Your task to perform on an android device: Open Yahoo.com Image 0: 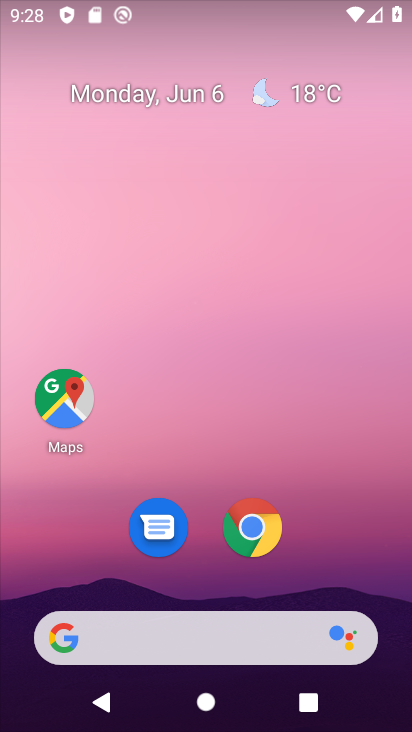
Step 0: click (275, 546)
Your task to perform on an android device: Open Yahoo.com Image 1: 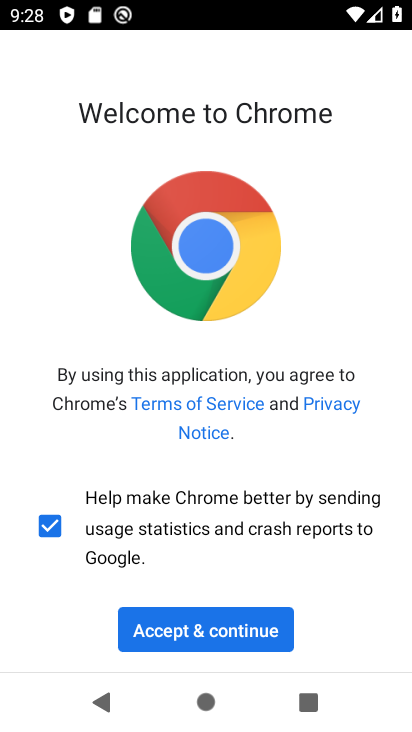
Step 1: click (183, 616)
Your task to perform on an android device: Open Yahoo.com Image 2: 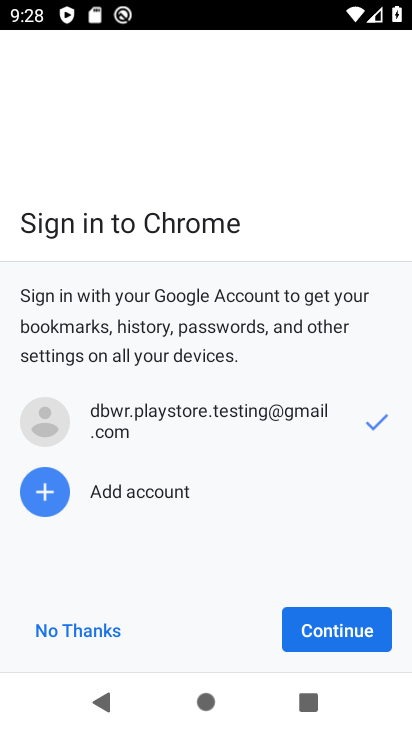
Step 2: click (334, 638)
Your task to perform on an android device: Open Yahoo.com Image 3: 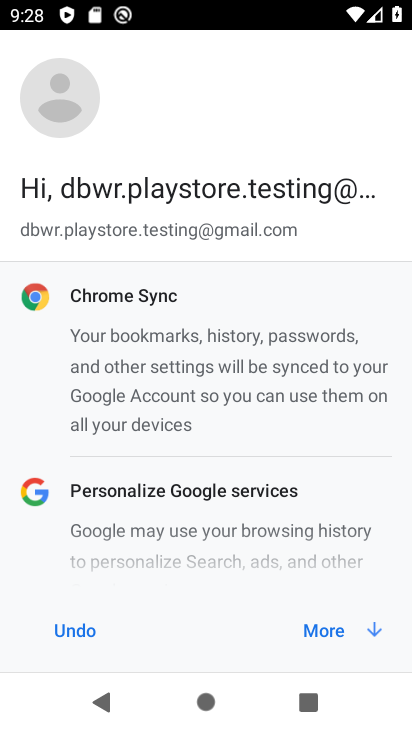
Step 3: click (334, 638)
Your task to perform on an android device: Open Yahoo.com Image 4: 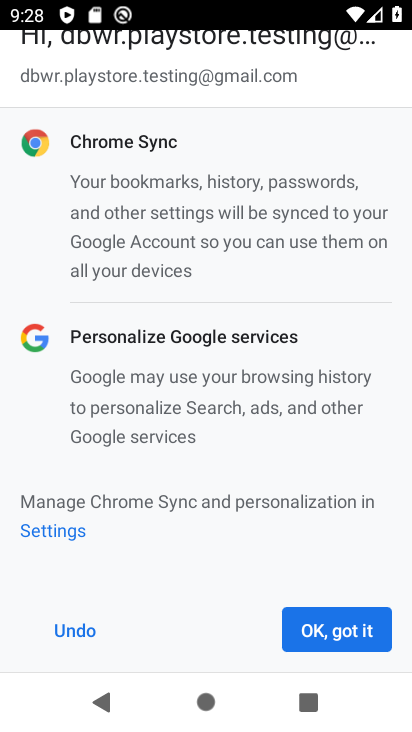
Step 4: click (334, 638)
Your task to perform on an android device: Open Yahoo.com Image 5: 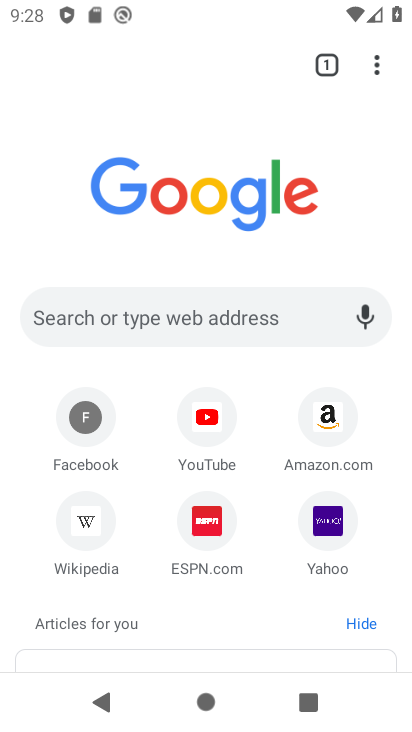
Step 5: click (329, 541)
Your task to perform on an android device: Open Yahoo.com Image 6: 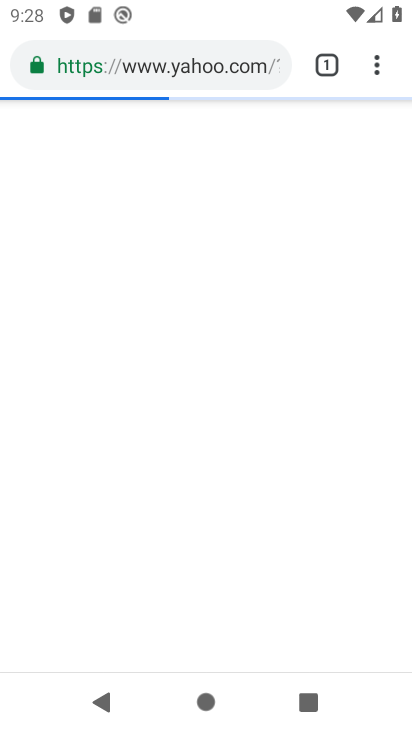
Step 6: click (329, 537)
Your task to perform on an android device: Open Yahoo.com Image 7: 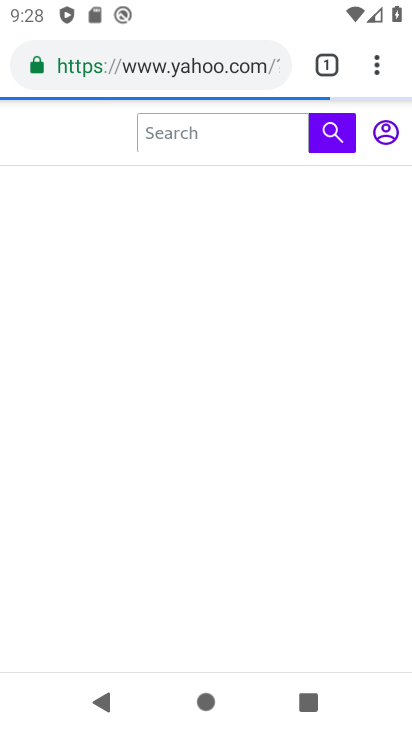
Step 7: task complete